Your task to perform on an android device: see sites visited before in the chrome app Image 0: 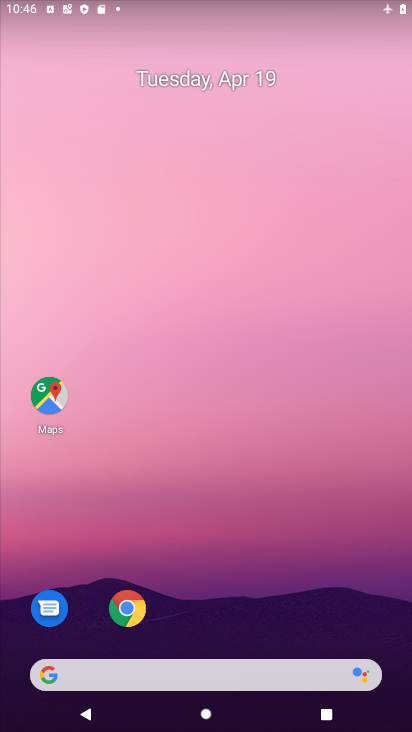
Step 0: click (126, 612)
Your task to perform on an android device: see sites visited before in the chrome app Image 1: 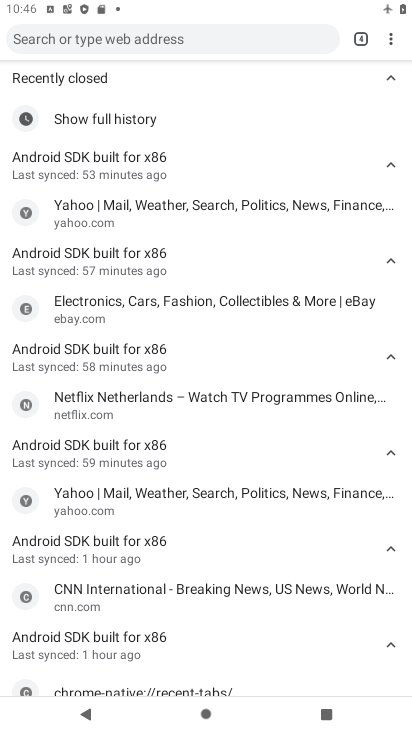
Step 1: click (391, 44)
Your task to perform on an android device: see sites visited before in the chrome app Image 2: 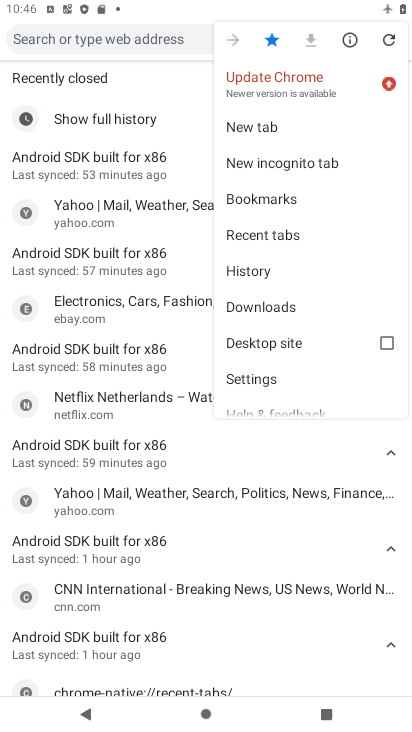
Step 2: click (247, 230)
Your task to perform on an android device: see sites visited before in the chrome app Image 3: 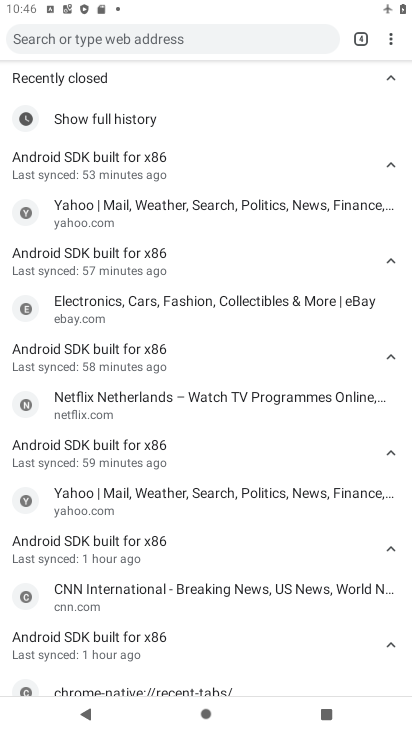
Step 3: click (105, 123)
Your task to perform on an android device: see sites visited before in the chrome app Image 4: 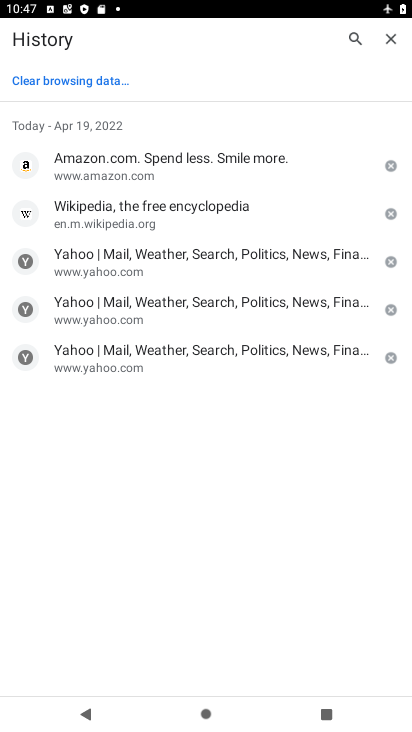
Step 4: task complete